Your task to perform on an android device: check google app version Image 0: 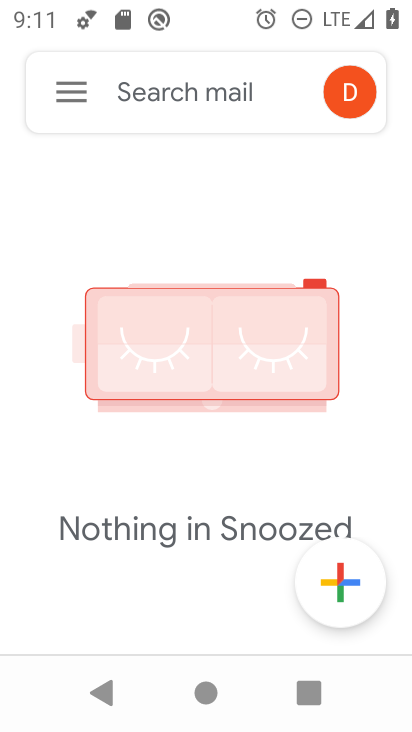
Step 0: press home button
Your task to perform on an android device: check google app version Image 1: 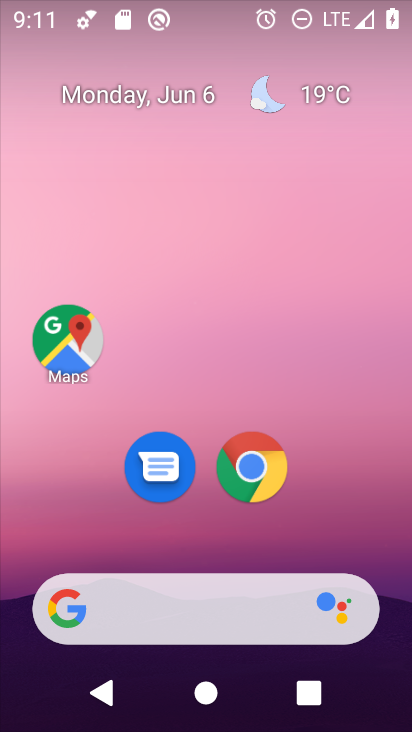
Step 1: drag from (355, 530) to (363, 61)
Your task to perform on an android device: check google app version Image 2: 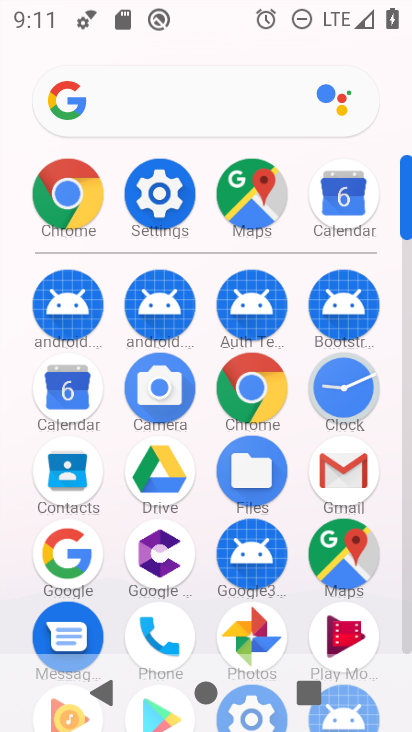
Step 2: click (87, 561)
Your task to perform on an android device: check google app version Image 3: 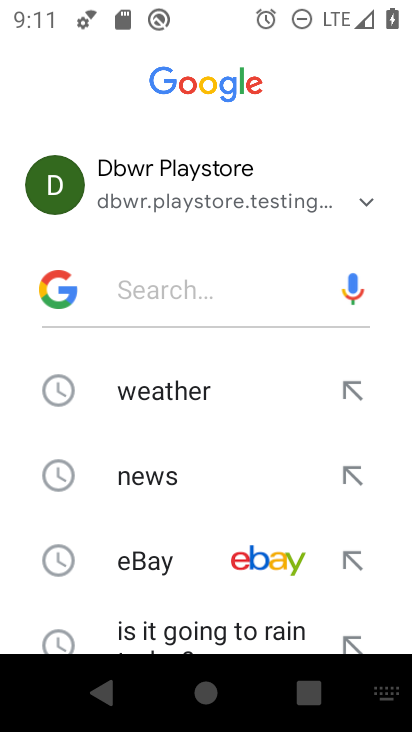
Step 3: press back button
Your task to perform on an android device: check google app version Image 4: 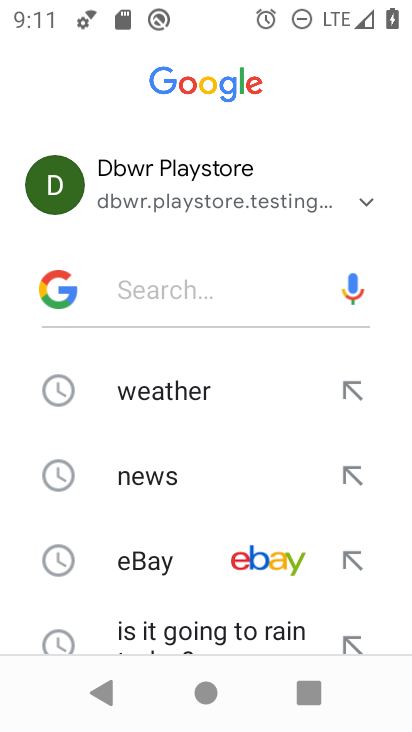
Step 4: press back button
Your task to perform on an android device: check google app version Image 5: 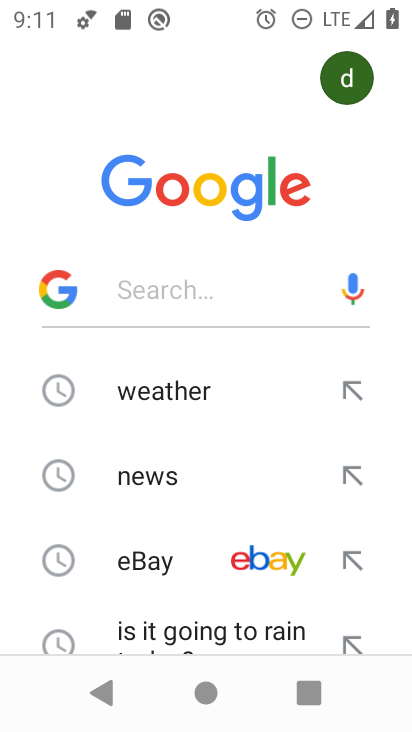
Step 5: press back button
Your task to perform on an android device: check google app version Image 6: 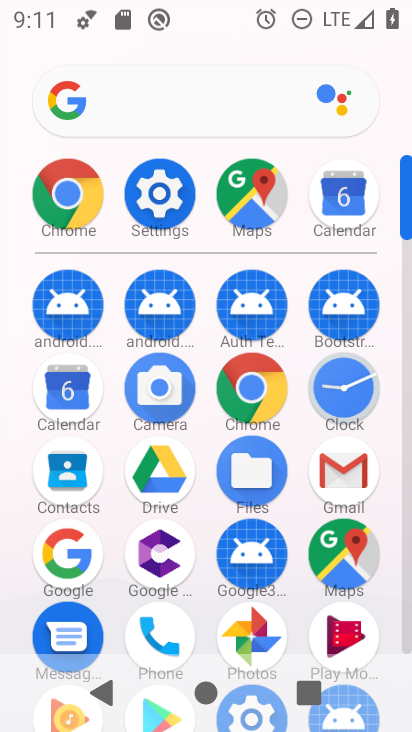
Step 6: click (75, 565)
Your task to perform on an android device: check google app version Image 7: 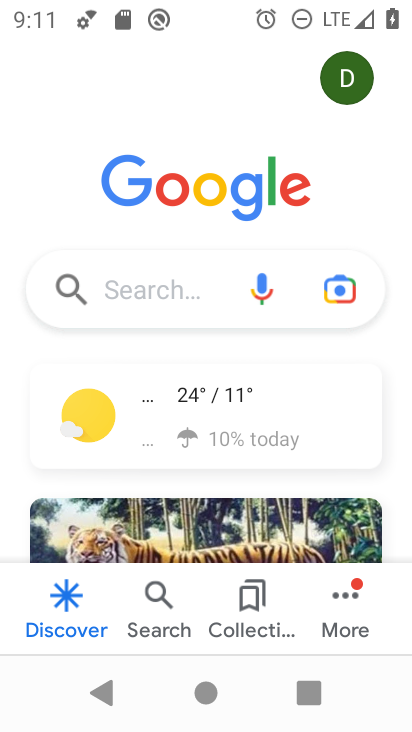
Step 7: click (345, 607)
Your task to perform on an android device: check google app version Image 8: 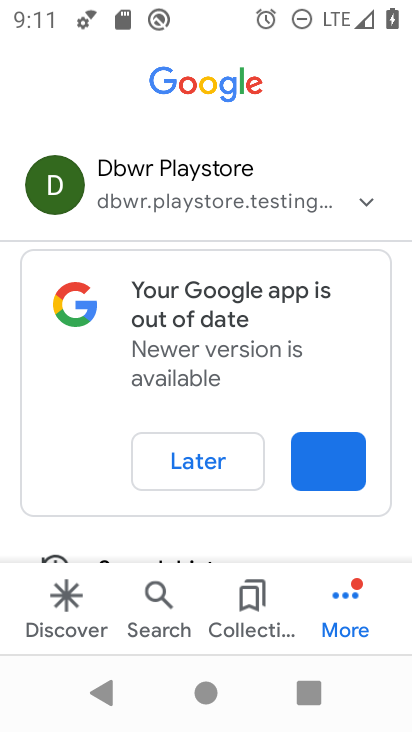
Step 8: drag from (326, 514) to (339, 314)
Your task to perform on an android device: check google app version Image 9: 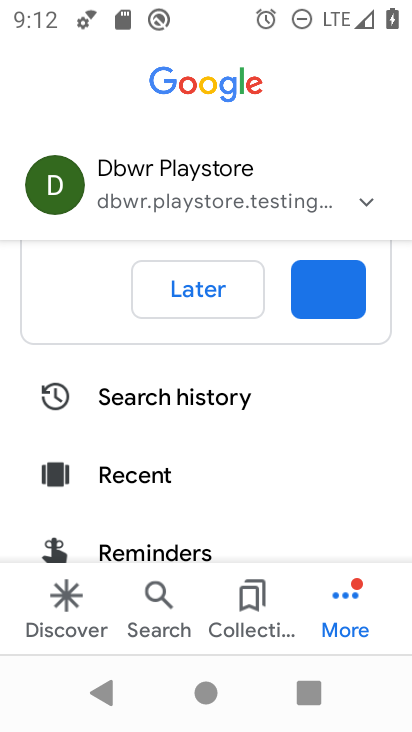
Step 9: drag from (331, 501) to (360, 272)
Your task to perform on an android device: check google app version Image 10: 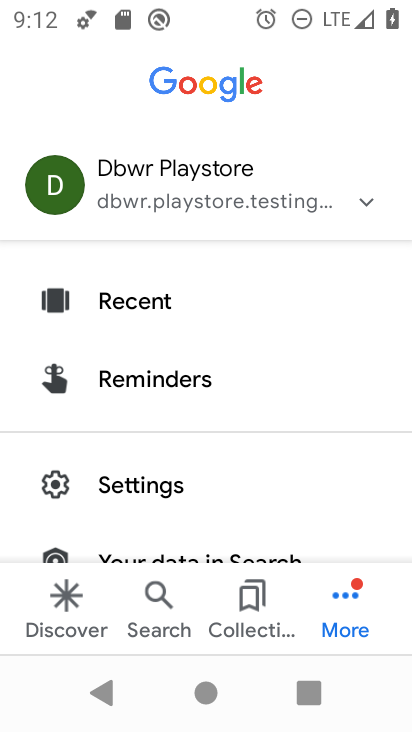
Step 10: click (196, 493)
Your task to perform on an android device: check google app version Image 11: 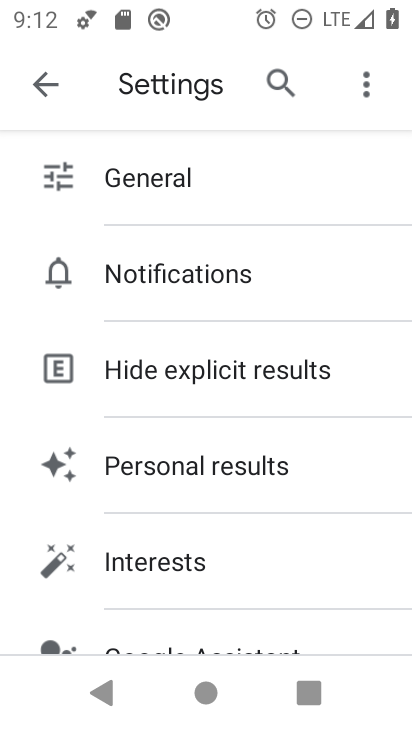
Step 11: drag from (328, 500) to (351, 380)
Your task to perform on an android device: check google app version Image 12: 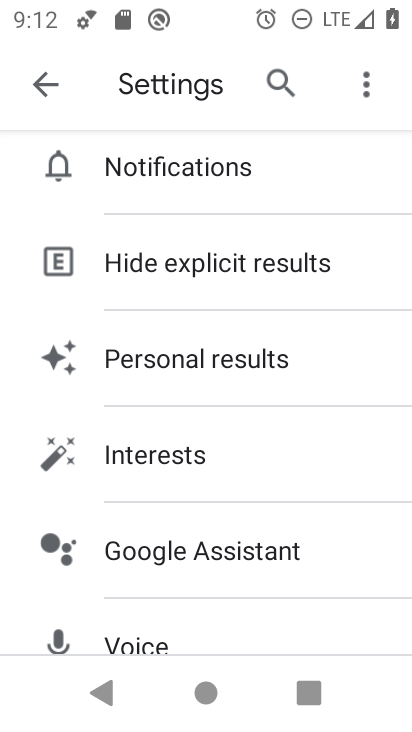
Step 12: drag from (368, 488) to (370, 247)
Your task to perform on an android device: check google app version Image 13: 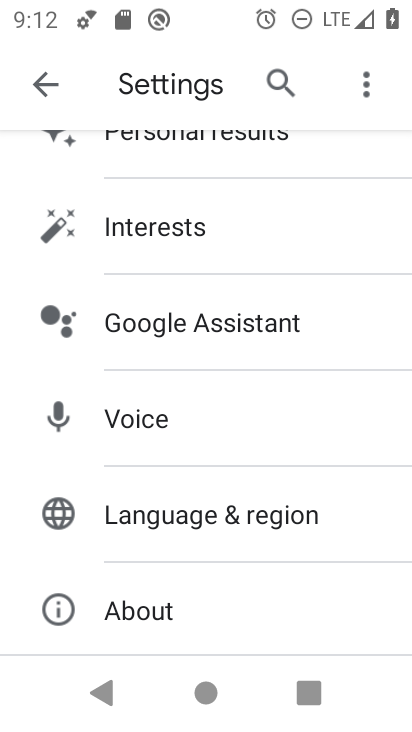
Step 13: click (217, 613)
Your task to perform on an android device: check google app version Image 14: 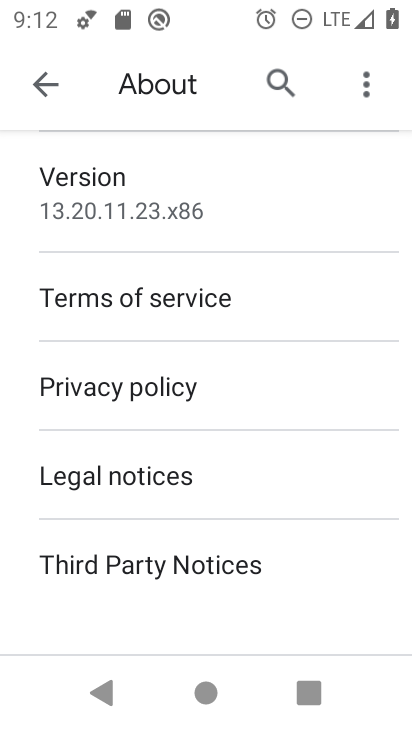
Step 14: task complete